Your task to perform on an android device: toggle location history Image 0: 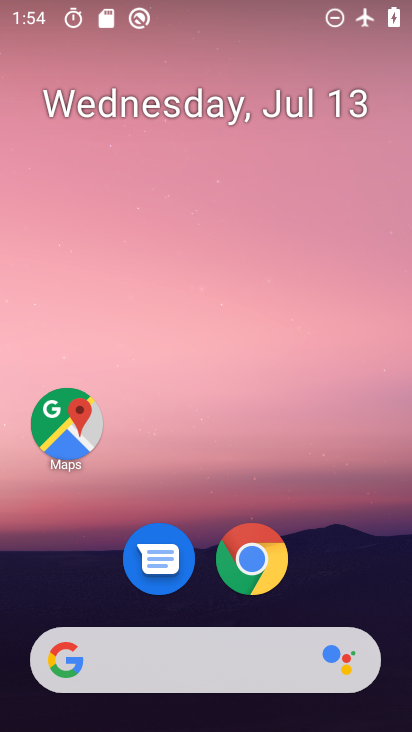
Step 0: drag from (197, 545) to (243, 140)
Your task to perform on an android device: toggle location history Image 1: 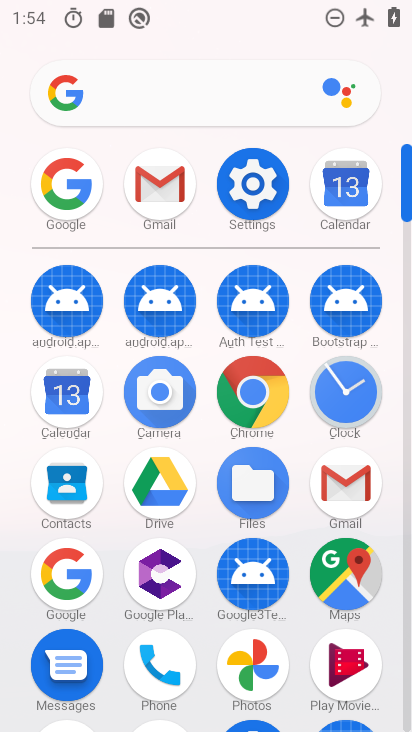
Step 1: drag from (243, 479) to (237, 313)
Your task to perform on an android device: toggle location history Image 2: 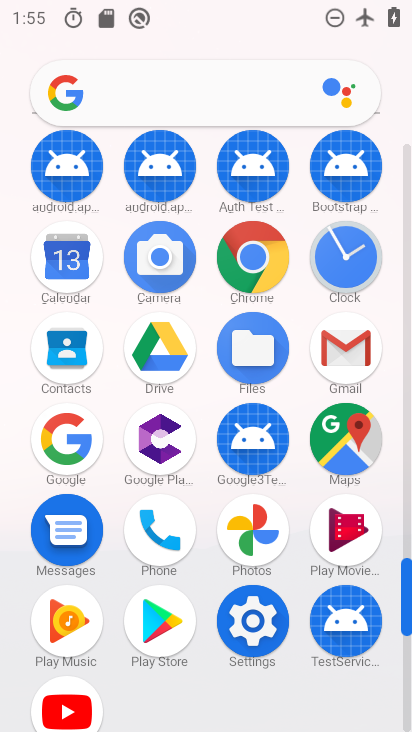
Step 2: click (256, 627)
Your task to perform on an android device: toggle location history Image 3: 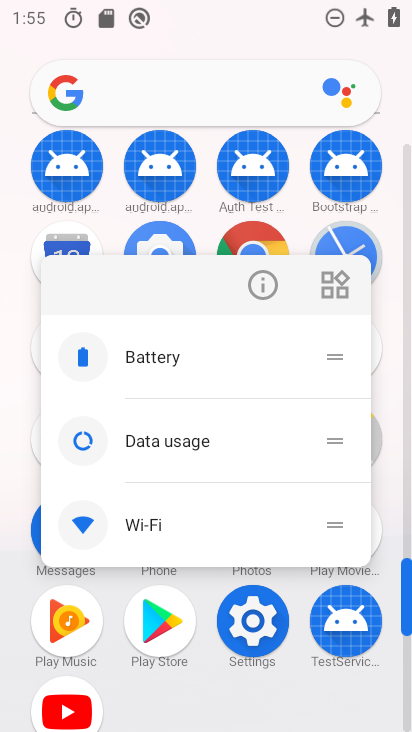
Step 3: click (254, 636)
Your task to perform on an android device: toggle location history Image 4: 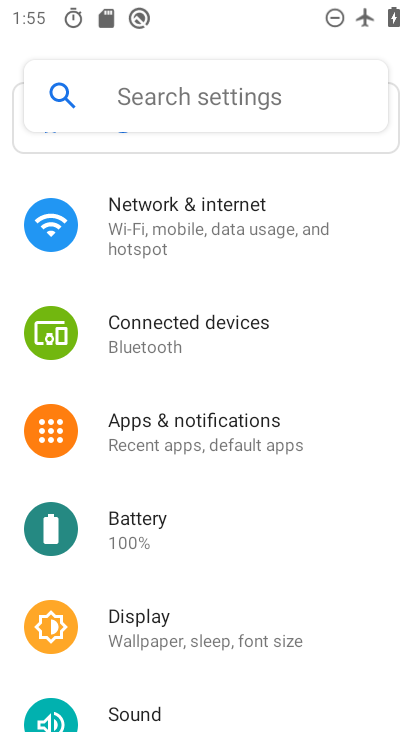
Step 4: drag from (220, 583) to (253, 374)
Your task to perform on an android device: toggle location history Image 5: 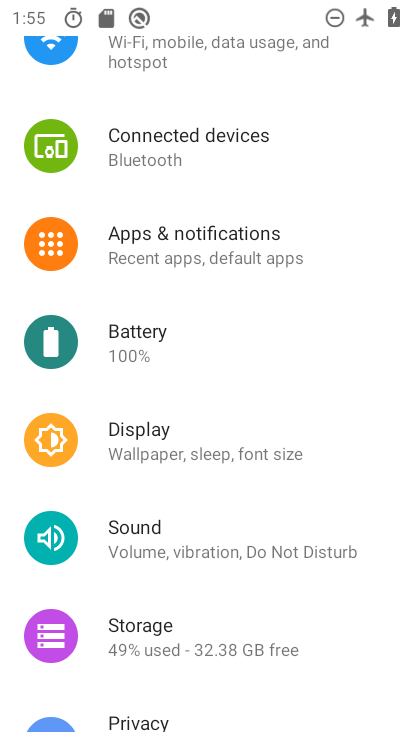
Step 5: drag from (181, 545) to (222, 412)
Your task to perform on an android device: toggle location history Image 6: 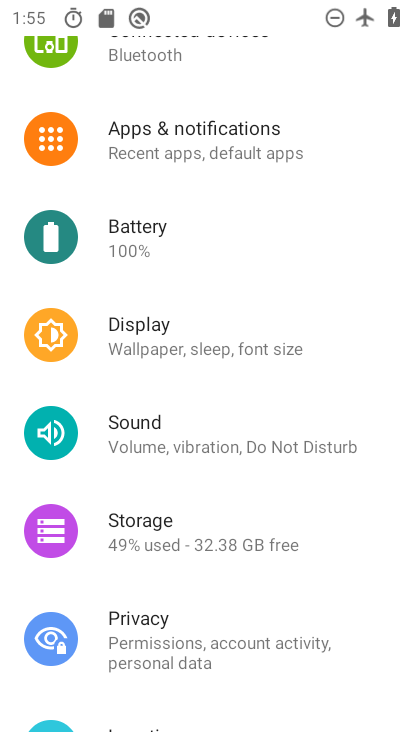
Step 6: drag from (161, 562) to (202, 319)
Your task to perform on an android device: toggle location history Image 7: 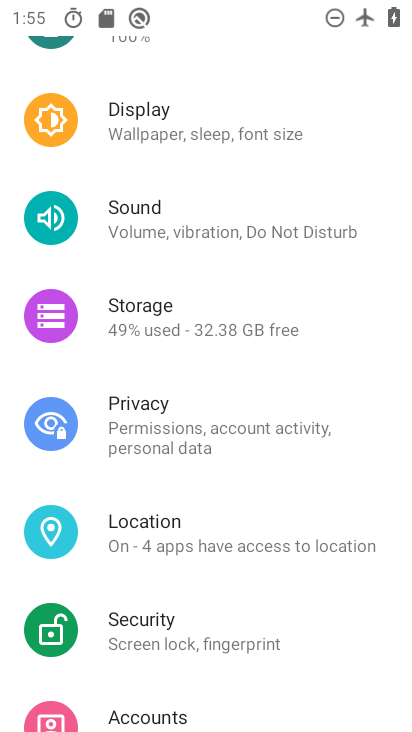
Step 7: click (193, 528)
Your task to perform on an android device: toggle location history Image 8: 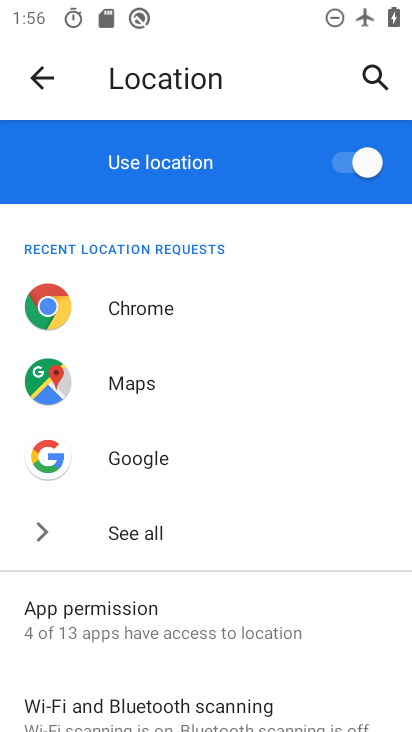
Step 8: drag from (182, 561) to (225, 391)
Your task to perform on an android device: toggle location history Image 9: 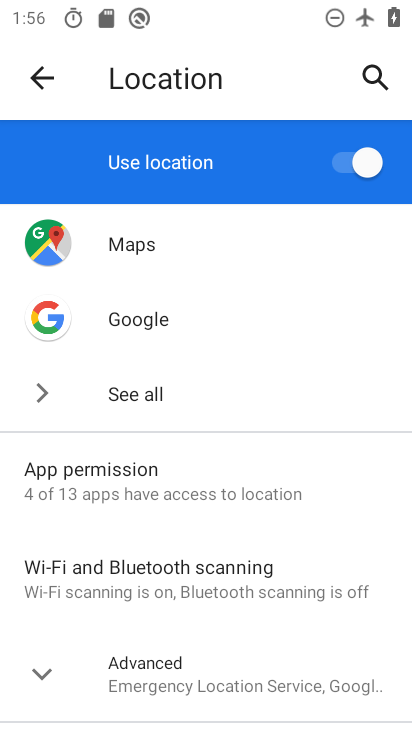
Step 9: drag from (162, 557) to (202, 421)
Your task to perform on an android device: toggle location history Image 10: 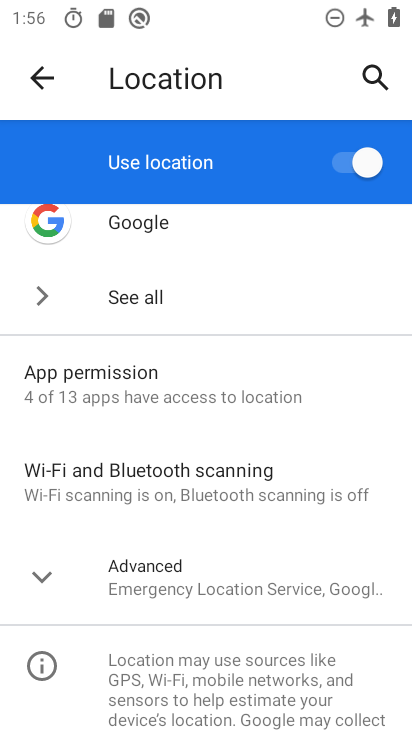
Step 10: click (146, 581)
Your task to perform on an android device: toggle location history Image 11: 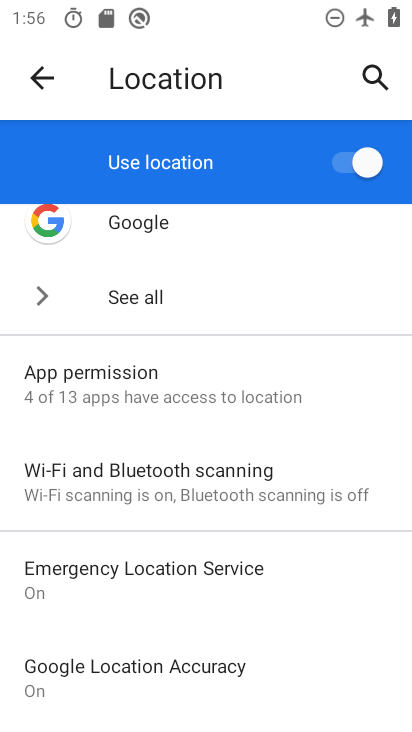
Step 11: drag from (126, 597) to (154, 514)
Your task to perform on an android device: toggle location history Image 12: 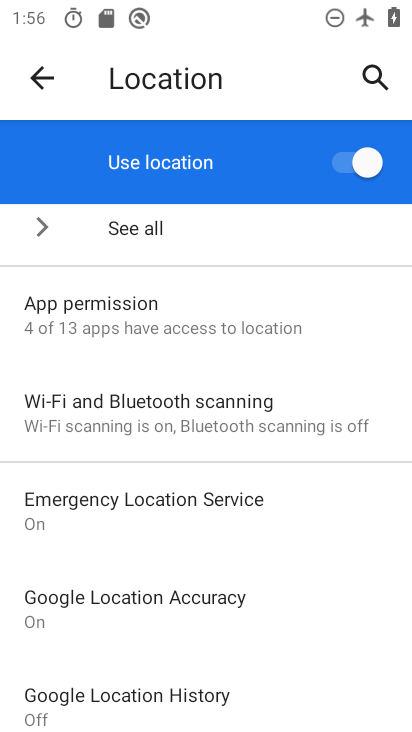
Step 12: click (183, 699)
Your task to perform on an android device: toggle location history Image 13: 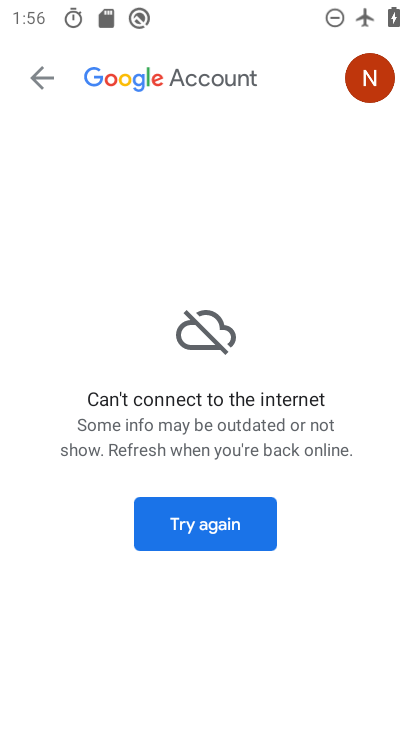
Step 13: click (226, 531)
Your task to perform on an android device: toggle location history Image 14: 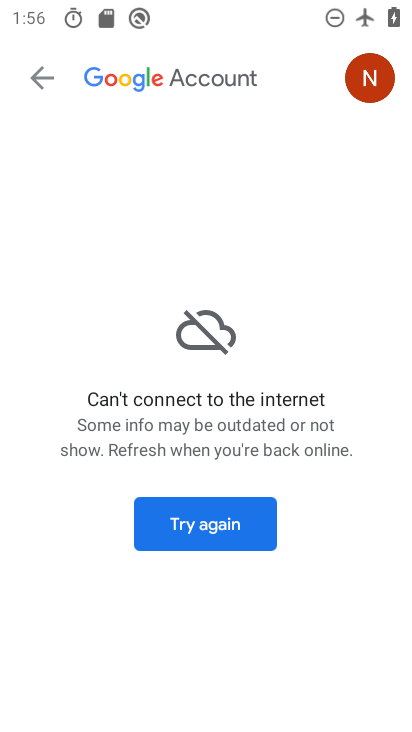
Step 14: task complete